Your task to perform on an android device: turn pop-ups on in chrome Image 0: 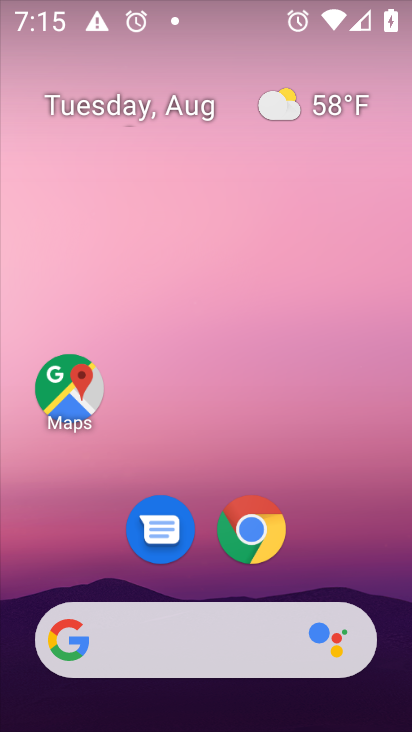
Step 0: press home button
Your task to perform on an android device: turn pop-ups on in chrome Image 1: 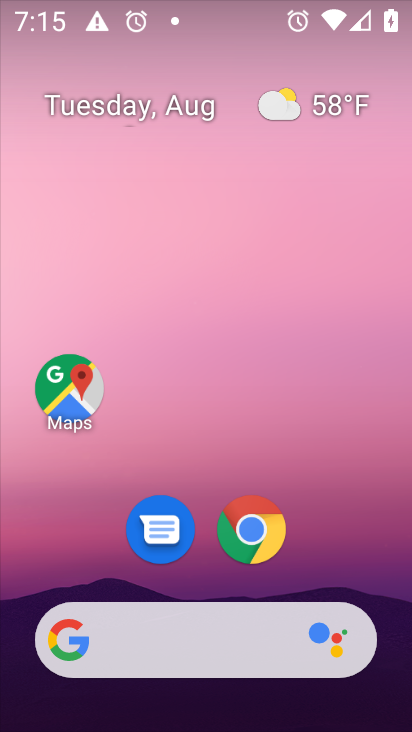
Step 1: click (249, 530)
Your task to perform on an android device: turn pop-ups on in chrome Image 2: 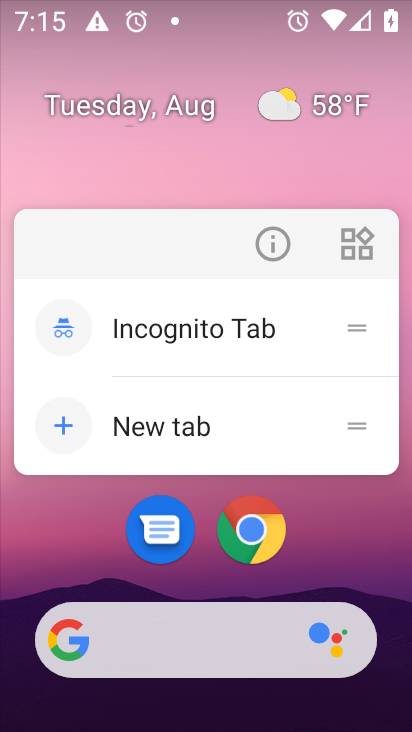
Step 2: click (249, 530)
Your task to perform on an android device: turn pop-ups on in chrome Image 3: 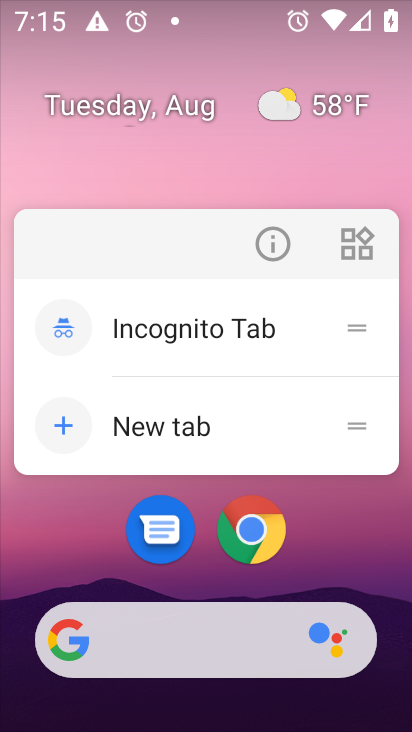
Step 3: click (249, 530)
Your task to perform on an android device: turn pop-ups on in chrome Image 4: 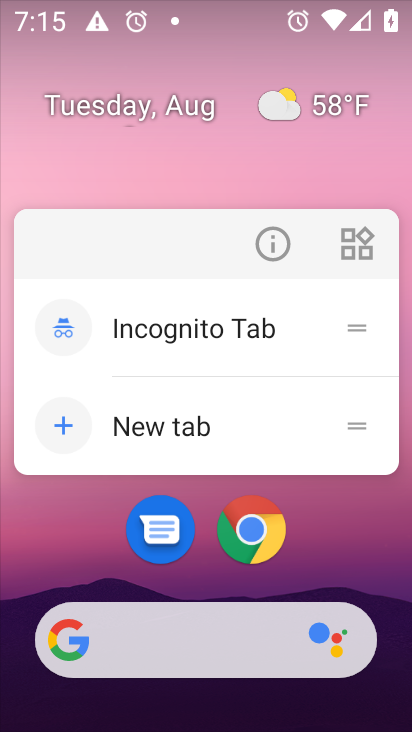
Step 4: click (249, 530)
Your task to perform on an android device: turn pop-ups on in chrome Image 5: 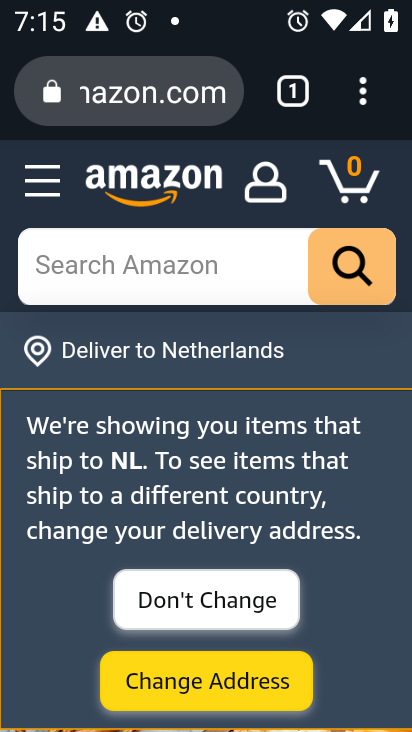
Step 5: drag from (365, 92) to (104, 565)
Your task to perform on an android device: turn pop-ups on in chrome Image 6: 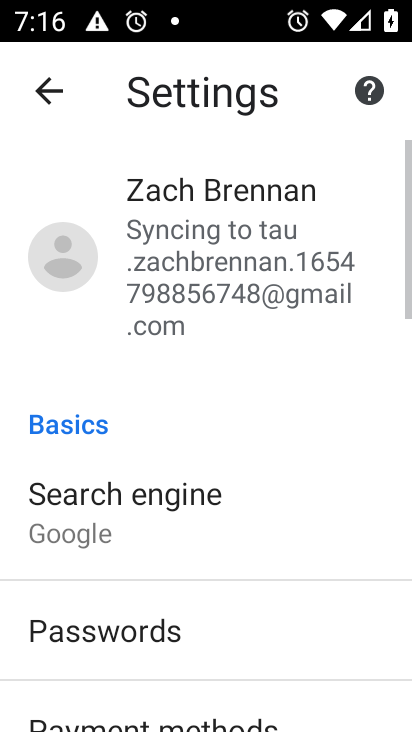
Step 6: drag from (297, 633) to (295, 178)
Your task to perform on an android device: turn pop-ups on in chrome Image 7: 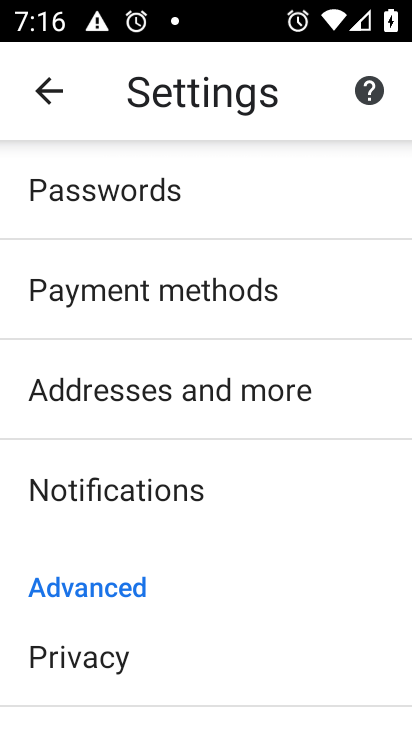
Step 7: drag from (183, 644) to (180, 375)
Your task to perform on an android device: turn pop-ups on in chrome Image 8: 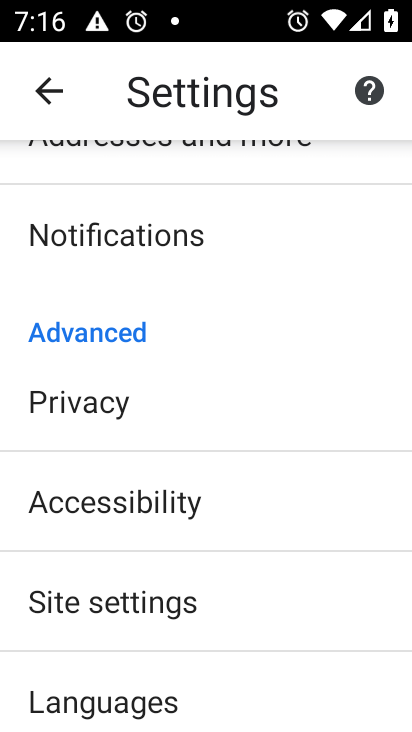
Step 8: click (104, 606)
Your task to perform on an android device: turn pop-ups on in chrome Image 9: 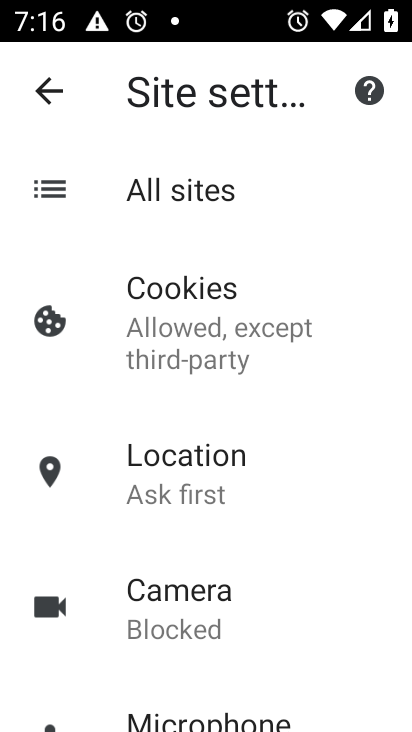
Step 9: drag from (305, 621) to (329, 193)
Your task to perform on an android device: turn pop-ups on in chrome Image 10: 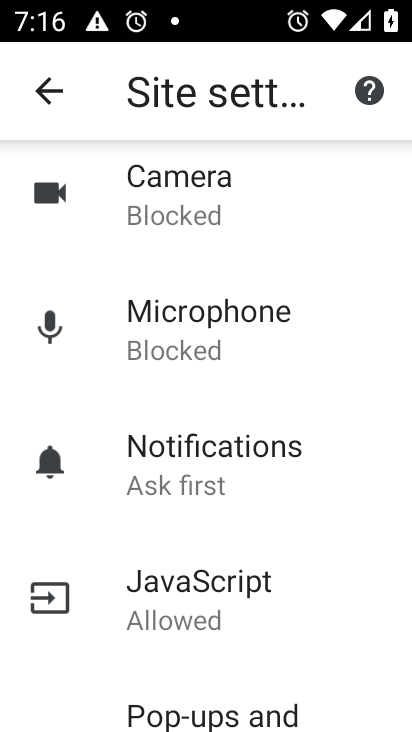
Step 10: drag from (340, 592) to (341, 406)
Your task to perform on an android device: turn pop-ups on in chrome Image 11: 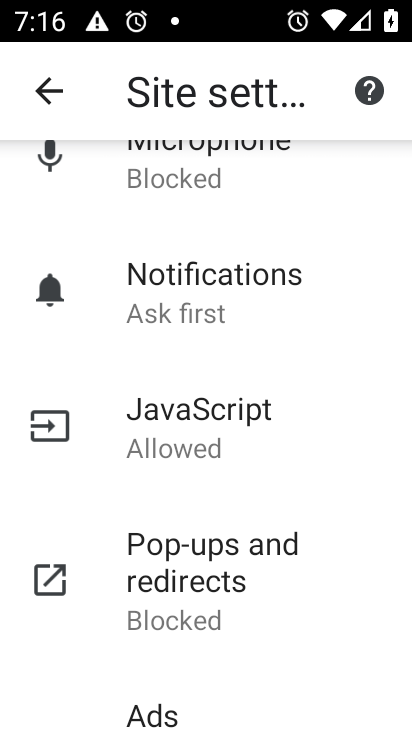
Step 11: click (177, 569)
Your task to perform on an android device: turn pop-ups on in chrome Image 12: 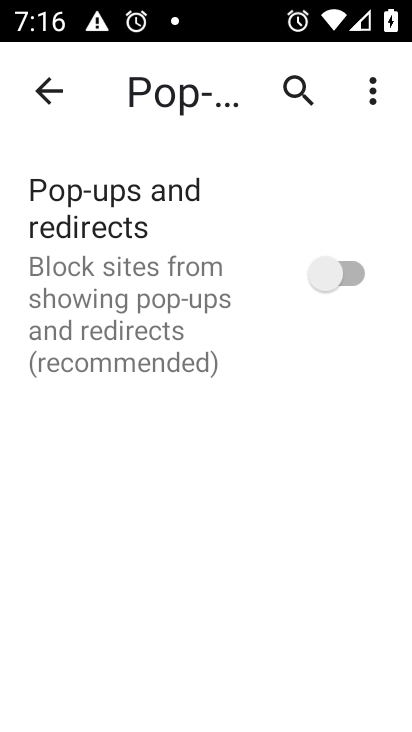
Step 12: click (324, 276)
Your task to perform on an android device: turn pop-ups on in chrome Image 13: 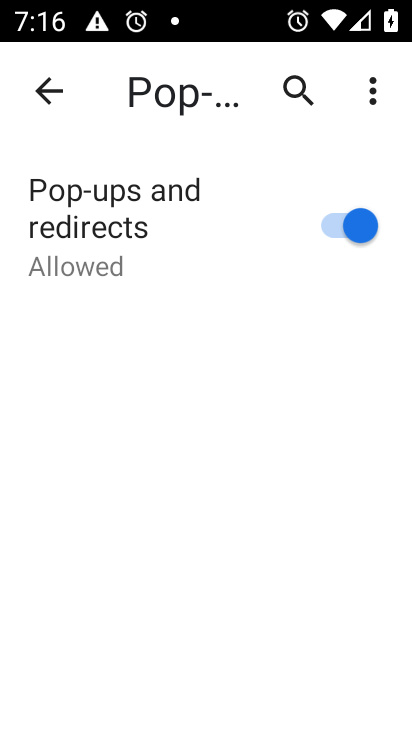
Step 13: task complete